Your task to perform on an android device: Go to Google maps Image 0: 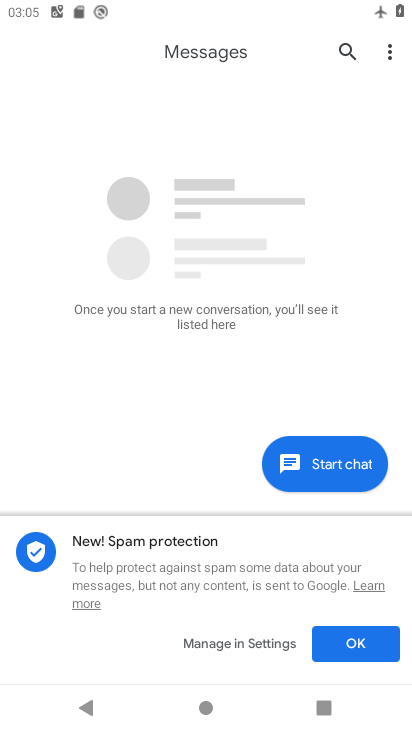
Step 0: press home button
Your task to perform on an android device: Go to Google maps Image 1: 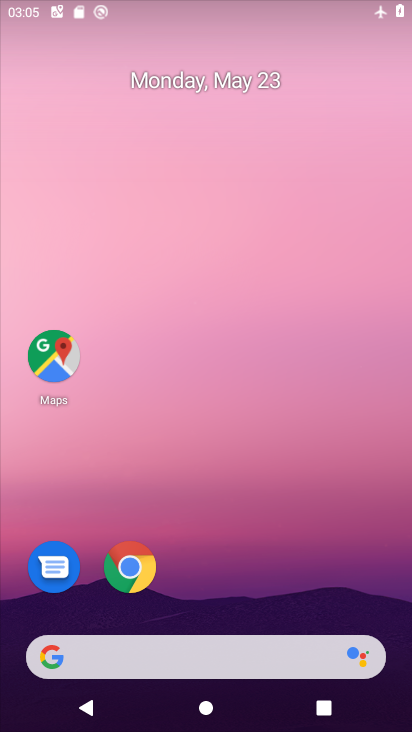
Step 1: drag from (227, 538) to (244, 104)
Your task to perform on an android device: Go to Google maps Image 2: 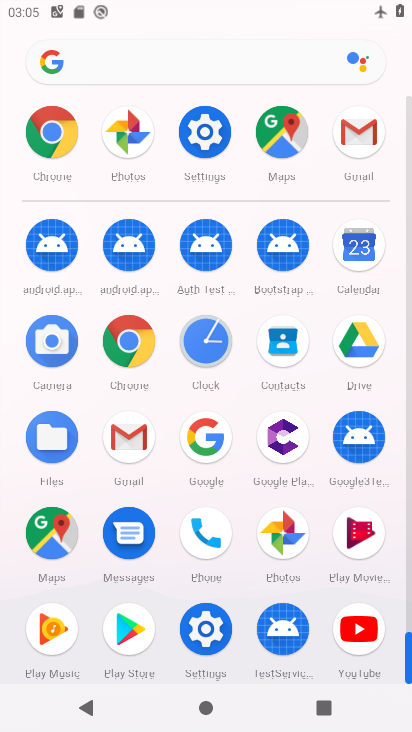
Step 2: click (40, 531)
Your task to perform on an android device: Go to Google maps Image 3: 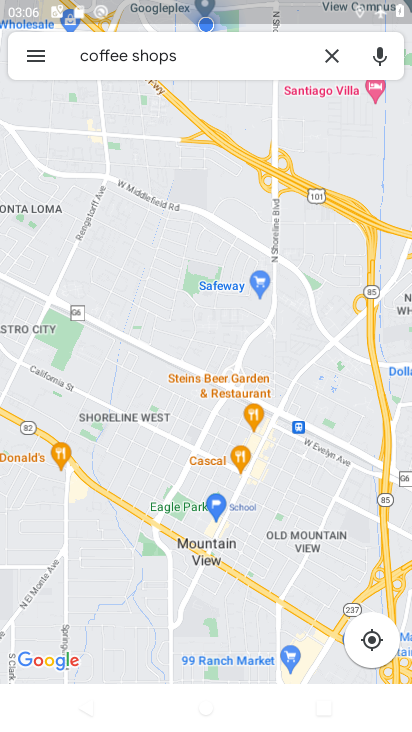
Step 3: task complete